Your task to perform on an android device: Open Youtube and go to the subscriptions tab Image 0: 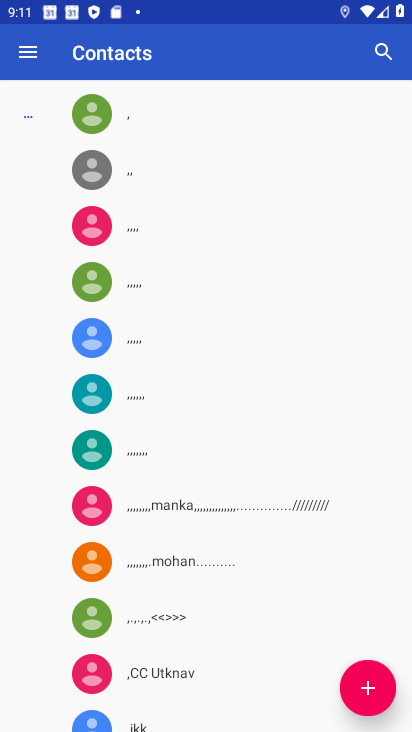
Step 0: press back button
Your task to perform on an android device: Open Youtube and go to the subscriptions tab Image 1: 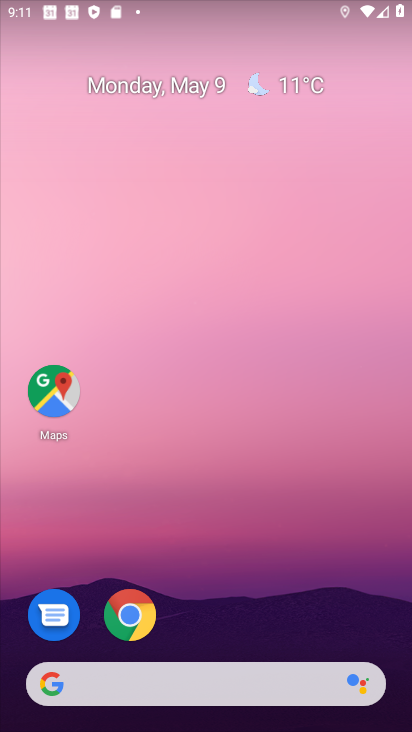
Step 1: drag from (285, 599) to (204, 40)
Your task to perform on an android device: Open Youtube and go to the subscriptions tab Image 2: 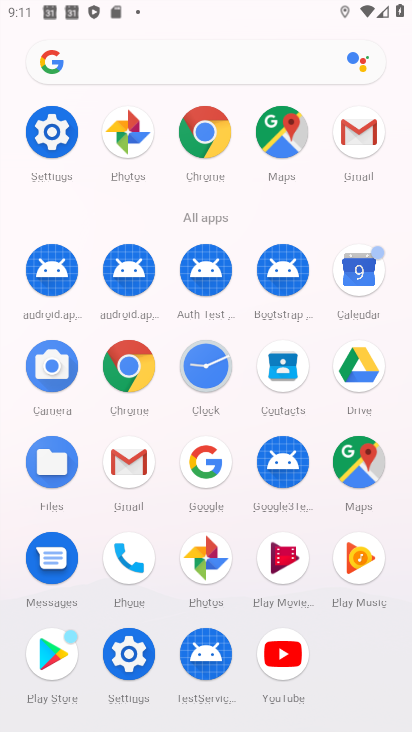
Step 2: click (280, 652)
Your task to perform on an android device: Open Youtube and go to the subscriptions tab Image 3: 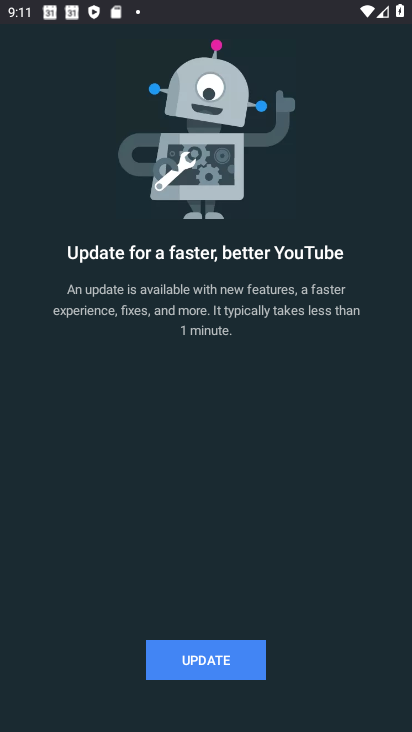
Step 3: click (216, 666)
Your task to perform on an android device: Open Youtube and go to the subscriptions tab Image 4: 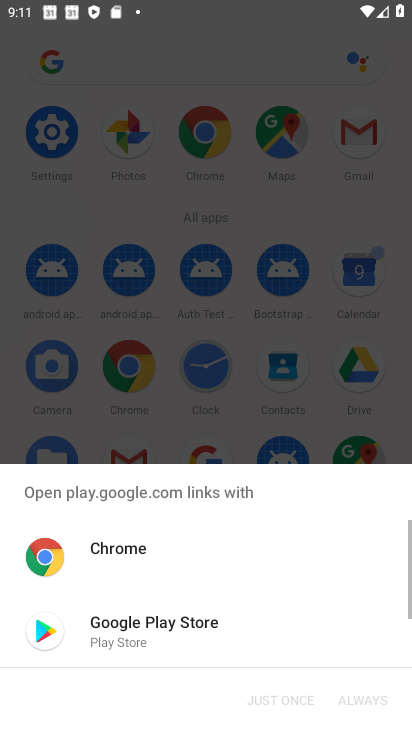
Step 4: click (174, 603)
Your task to perform on an android device: Open Youtube and go to the subscriptions tab Image 5: 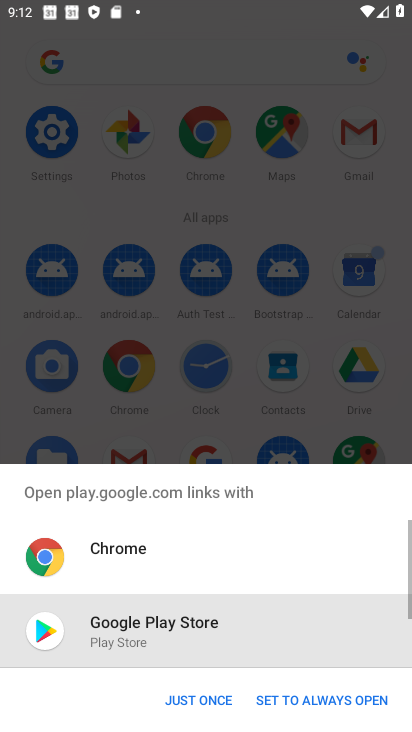
Step 5: click (168, 701)
Your task to perform on an android device: Open Youtube and go to the subscriptions tab Image 6: 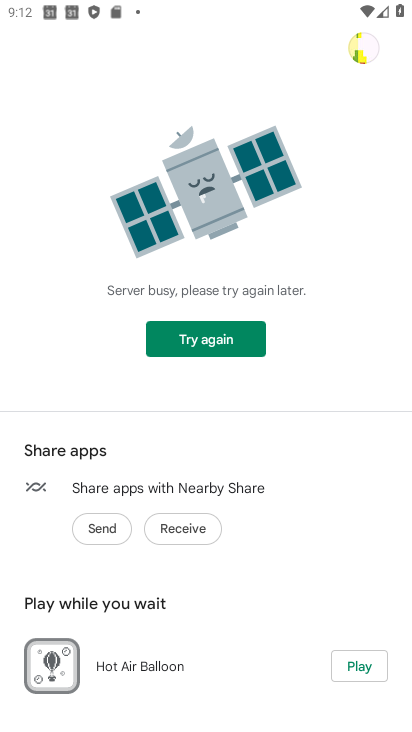
Step 6: click (203, 338)
Your task to perform on an android device: Open Youtube and go to the subscriptions tab Image 7: 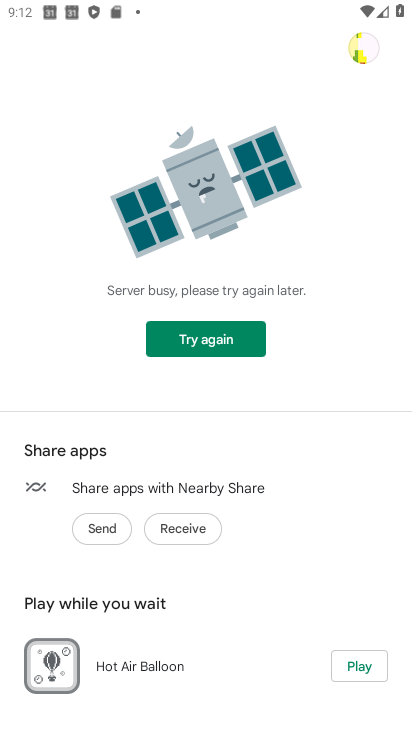
Step 7: click (203, 338)
Your task to perform on an android device: Open Youtube and go to the subscriptions tab Image 8: 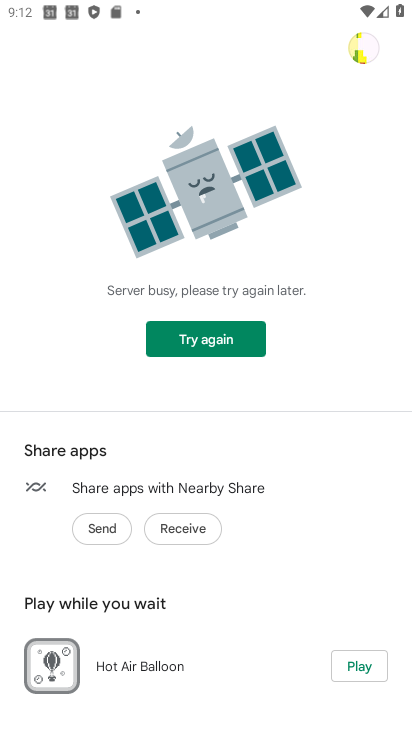
Step 8: task complete